Your task to perform on an android device: Open Google Chrome and open the bookmarks view Image 0: 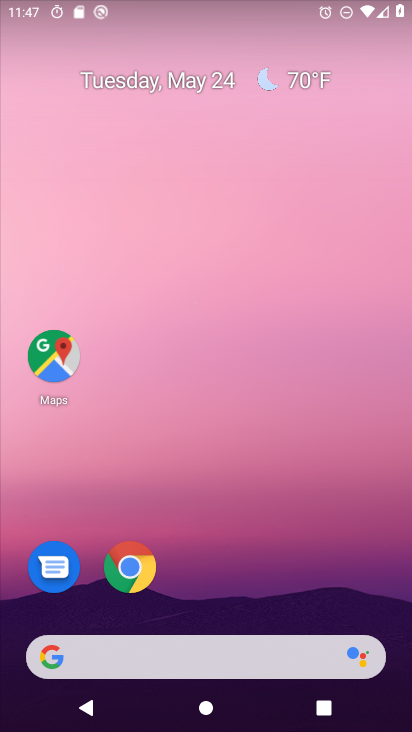
Step 0: click (123, 559)
Your task to perform on an android device: Open Google Chrome and open the bookmarks view Image 1: 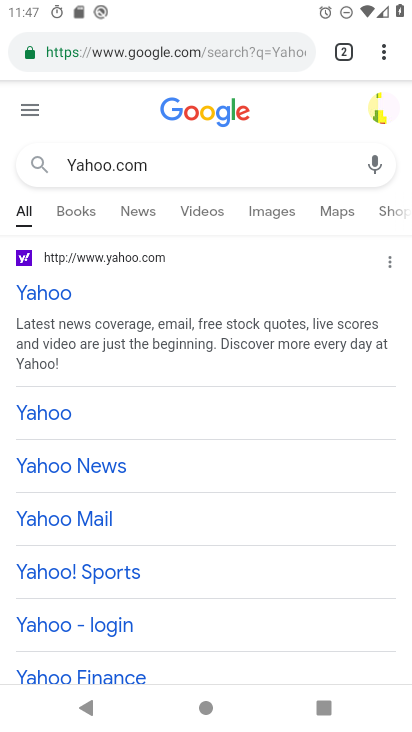
Step 1: click (382, 51)
Your task to perform on an android device: Open Google Chrome and open the bookmarks view Image 2: 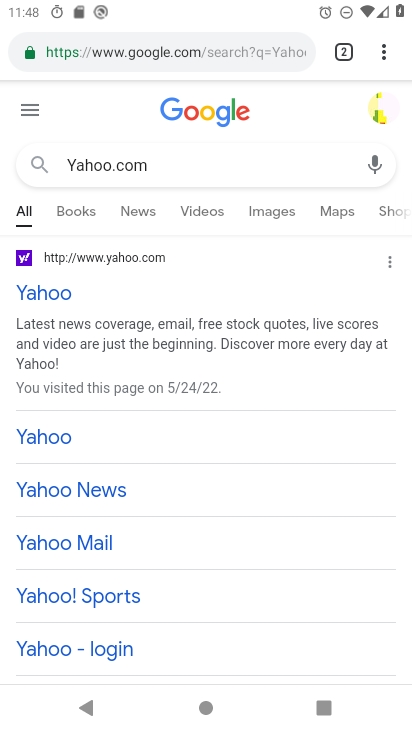
Step 2: click (383, 47)
Your task to perform on an android device: Open Google Chrome and open the bookmarks view Image 3: 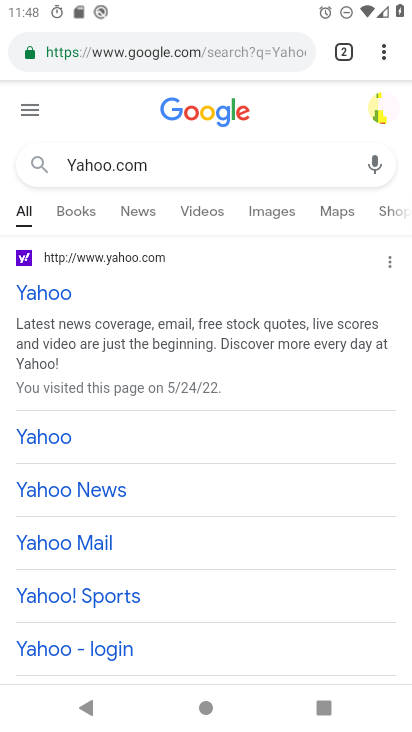
Step 3: click (383, 47)
Your task to perform on an android device: Open Google Chrome and open the bookmarks view Image 4: 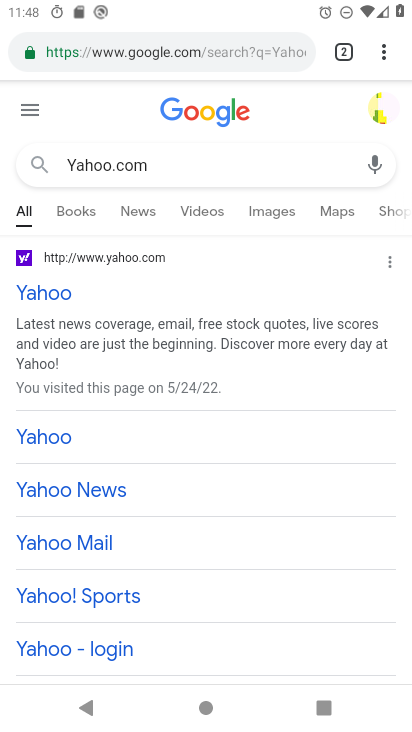
Step 4: click (385, 47)
Your task to perform on an android device: Open Google Chrome and open the bookmarks view Image 5: 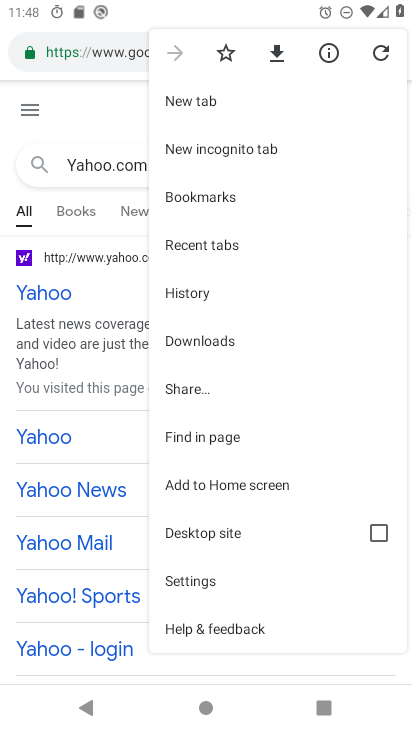
Step 5: click (212, 193)
Your task to perform on an android device: Open Google Chrome and open the bookmarks view Image 6: 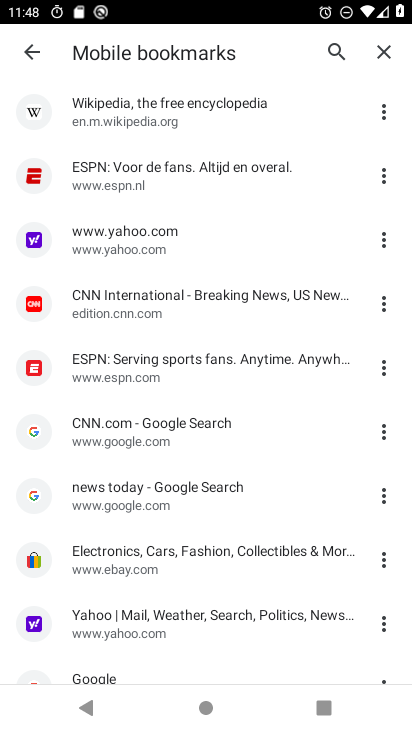
Step 6: task complete